Your task to perform on an android device: When is my next meeting? Image 0: 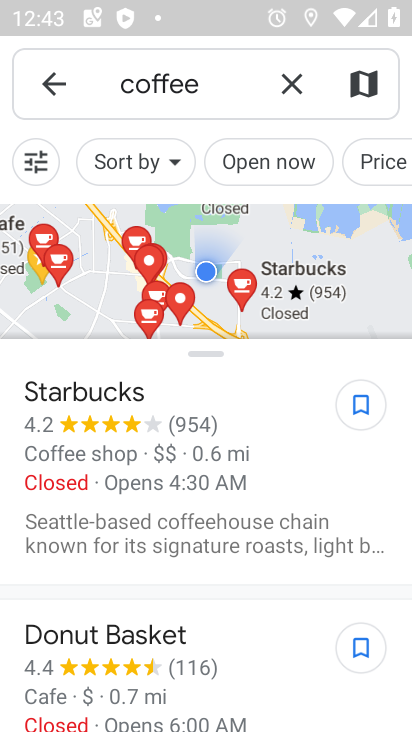
Step 0: press home button
Your task to perform on an android device: When is my next meeting? Image 1: 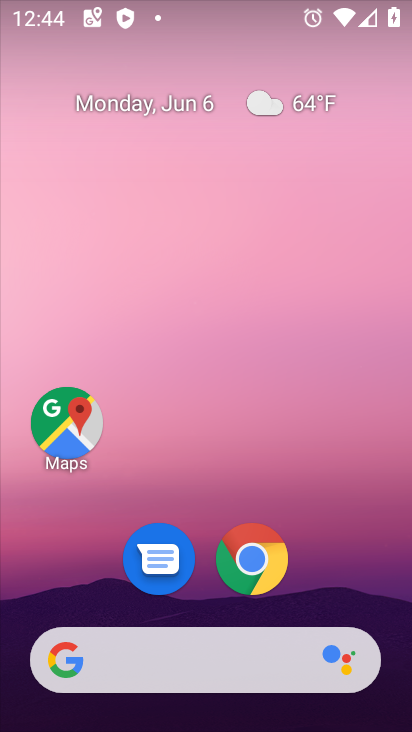
Step 1: drag from (255, 702) to (197, 147)
Your task to perform on an android device: When is my next meeting? Image 2: 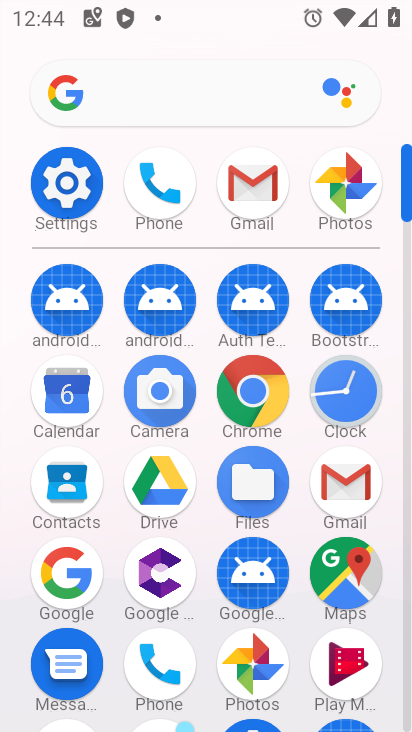
Step 2: click (73, 481)
Your task to perform on an android device: When is my next meeting? Image 3: 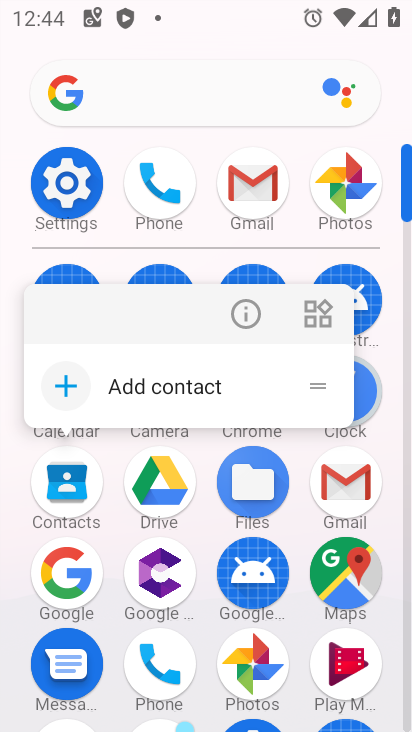
Step 3: press home button
Your task to perform on an android device: When is my next meeting? Image 4: 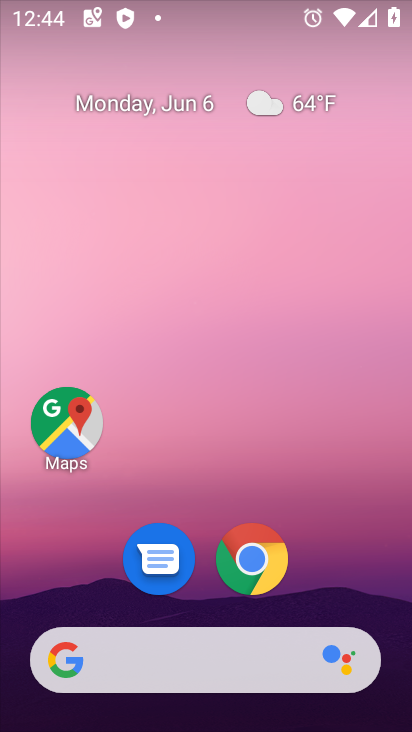
Step 4: drag from (309, 707) to (354, 115)
Your task to perform on an android device: When is my next meeting? Image 5: 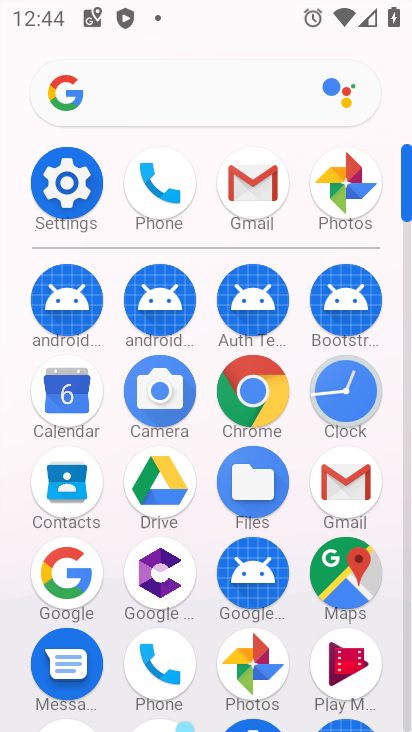
Step 5: click (93, 376)
Your task to perform on an android device: When is my next meeting? Image 6: 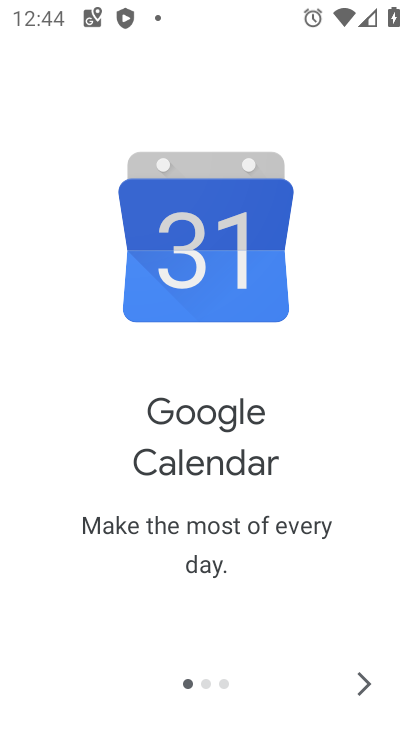
Step 6: click (358, 688)
Your task to perform on an android device: When is my next meeting? Image 7: 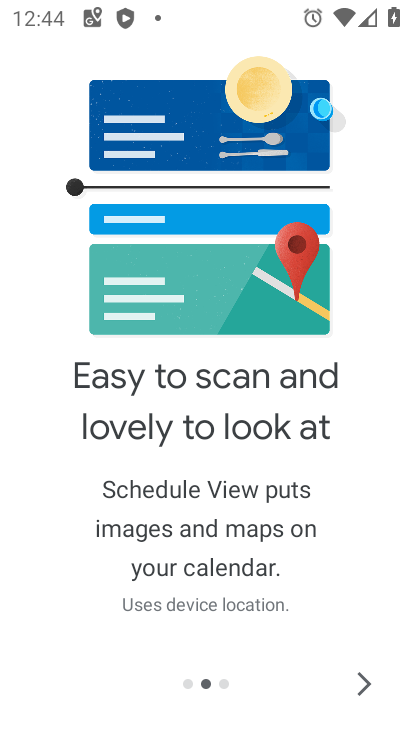
Step 7: click (357, 689)
Your task to perform on an android device: When is my next meeting? Image 8: 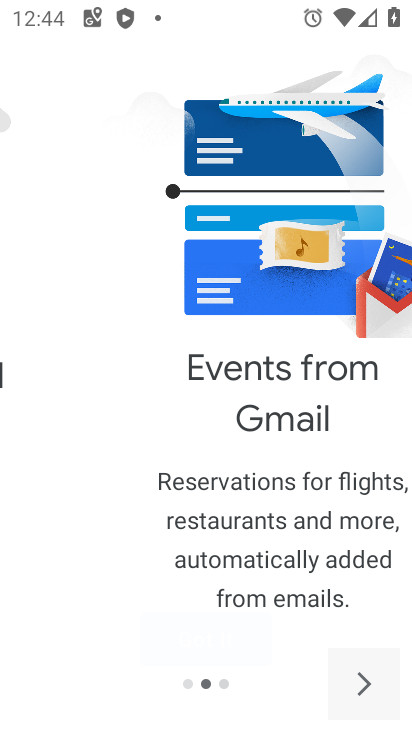
Step 8: click (362, 686)
Your task to perform on an android device: When is my next meeting? Image 9: 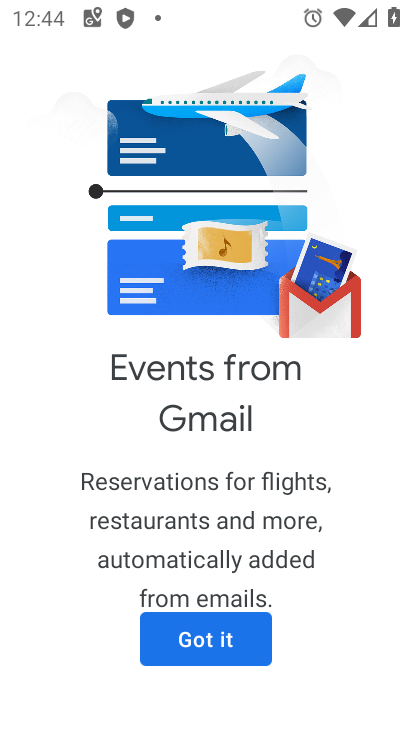
Step 9: click (230, 639)
Your task to perform on an android device: When is my next meeting? Image 10: 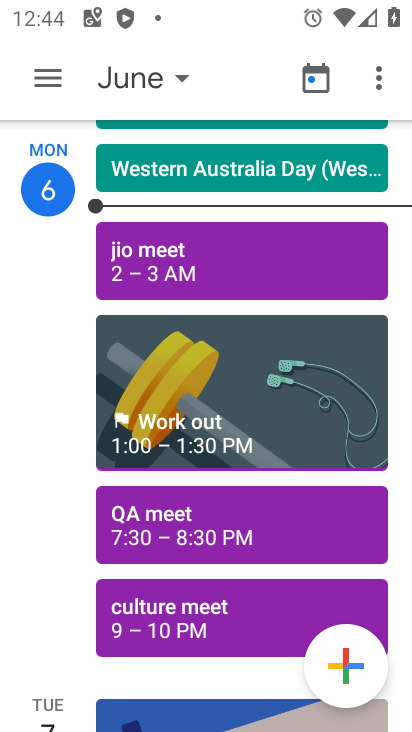
Step 10: task complete